Your task to perform on an android device: Search for vegetarian restaurants on Maps Image 0: 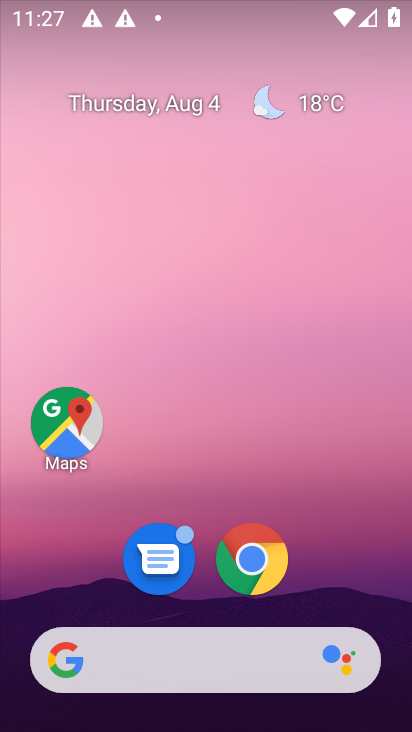
Step 0: click (75, 411)
Your task to perform on an android device: Search for vegetarian restaurants on Maps Image 1: 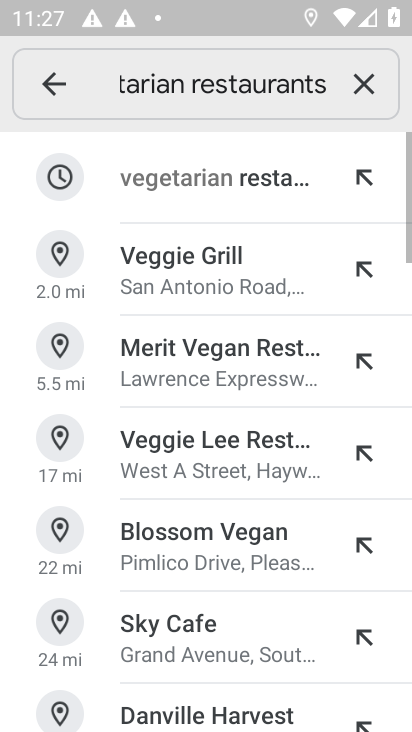
Step 1: click (362, 78)
Your task to perform on an android device: Search for vegetarian restaurants on Maps Image 2: 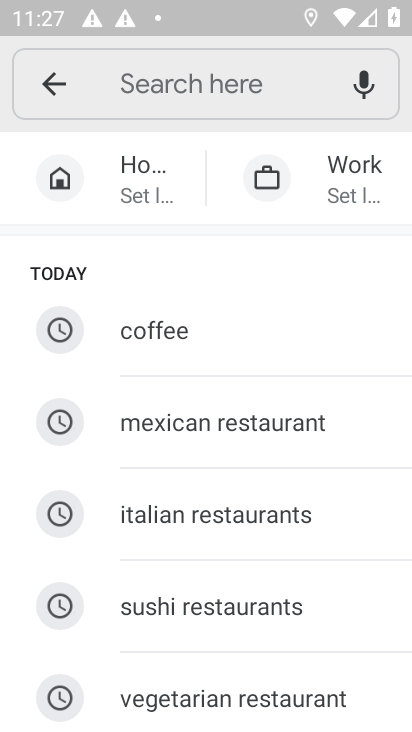
Step 2: click (120, 85)
Your task to perform on an android device: Search for vegetarian restaurants on Maps Image 3: 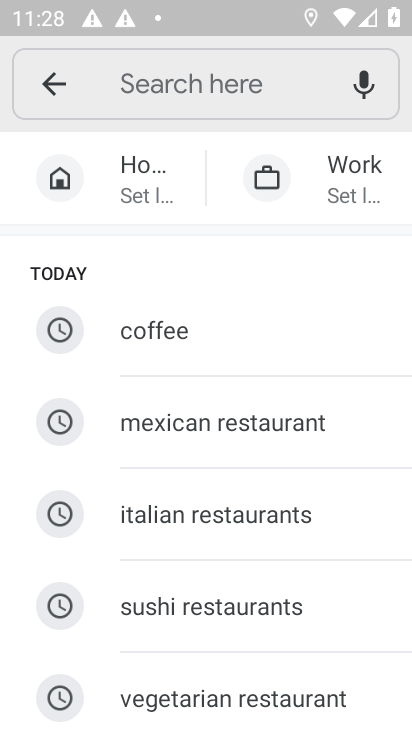
Step 3: click (195, 704)
Your task to perform on an android device: Search for vegetarian restaurants on Maps Image 4: 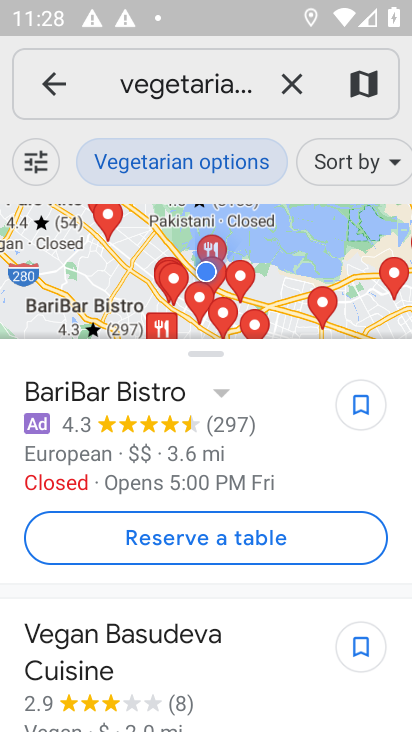
Step 4: task complete